Your task to perform on an android device: Open Google Image 0: 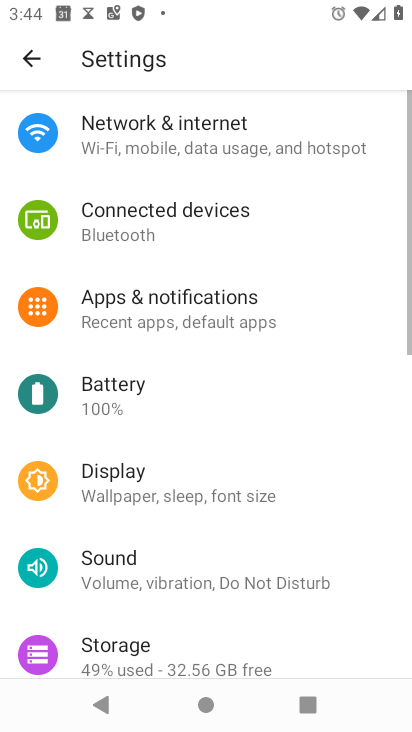
Step 0: press home button
Your task to perform on an android device: Open Google Image 1: 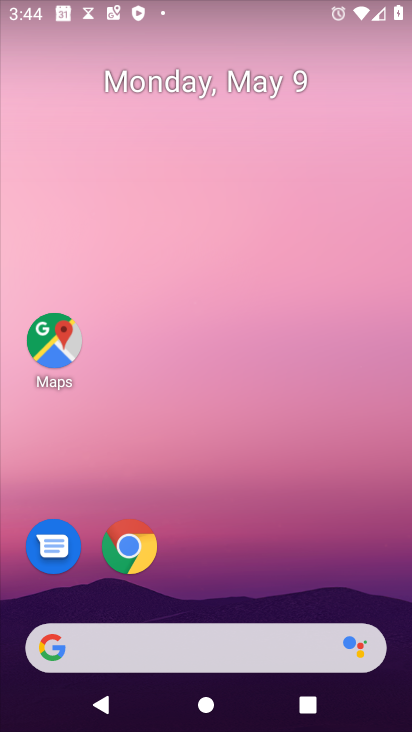
Step 1: drag from (263, 540) to (241, 46)
Your task to perform on an android device: Open Google Image 2: 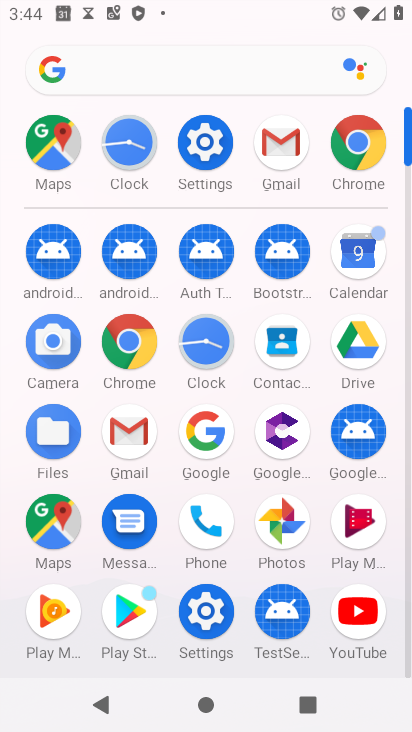
Step 2: click (56, 143)
Your task to perform on an android device: Open Google Image 3: 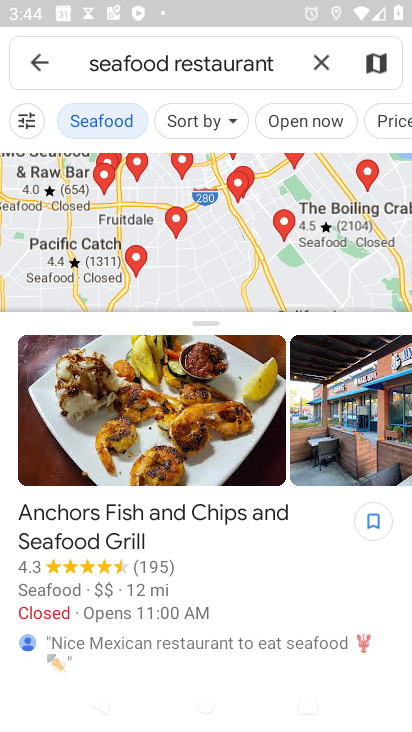
Step 3: task complete